Your task to perform on an android device: Open display settings Image 0: 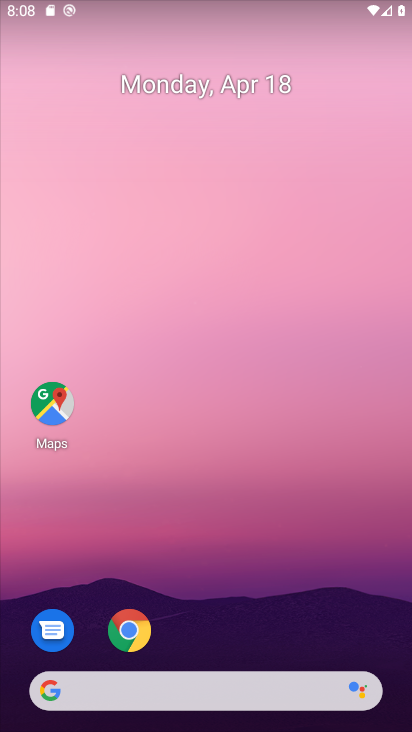
Step 0: drag from (214, 416) to (287, 2)
Your task to perform on an android device: Open display settings Image 1: 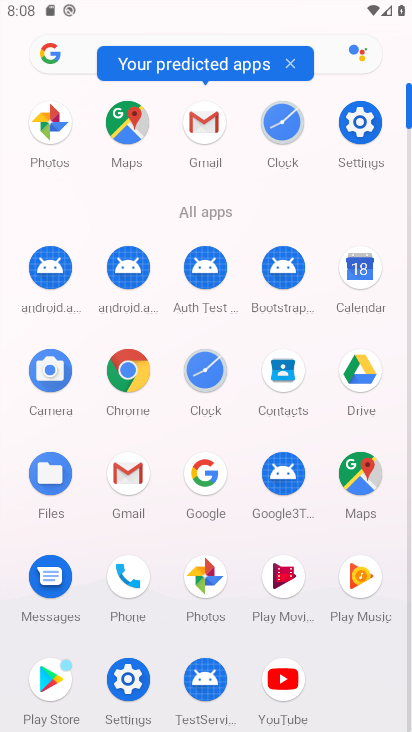
Step 1: click (138, 687)
Your task to perform on an android device: Open display settings Image 2: 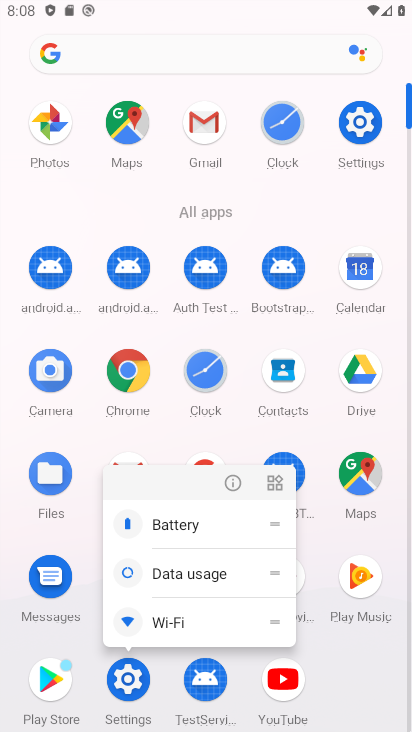
Step 2: click (130, 684)
Your task to perform on an android device: Open display settings Image 3: 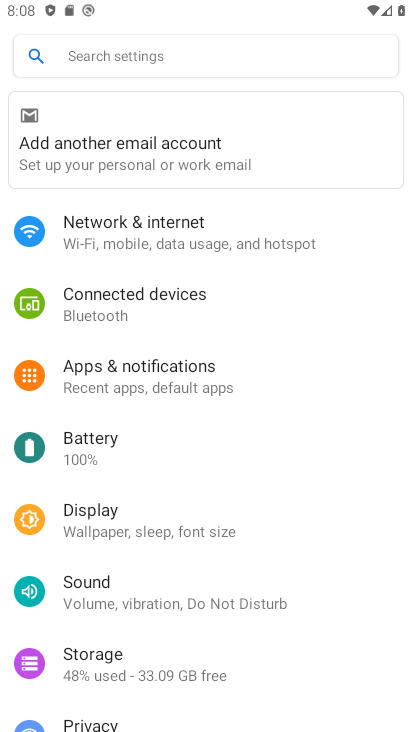
Step 3: click (163, 536)
Your task to perform on an android device: Open display settings Image 4: 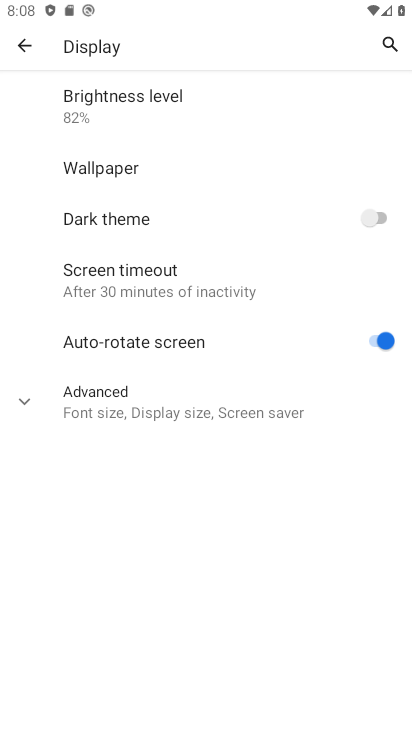
Step 4: task complete